Your task to perform on an android device: What is the news today? Image 0: 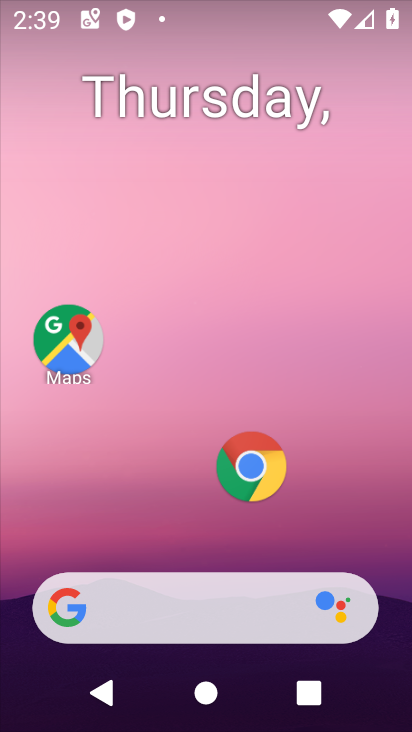
Step 0: drag from (214, 539) to (214, 209)
Your task to perform on an android device: What is the news today? Image 1: 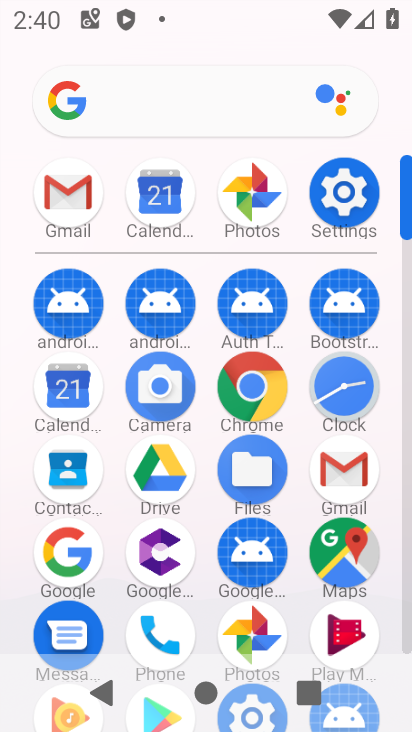
Step 1: click (74, 530)
Your task to perform on an android device: What is the news today? Image 2: 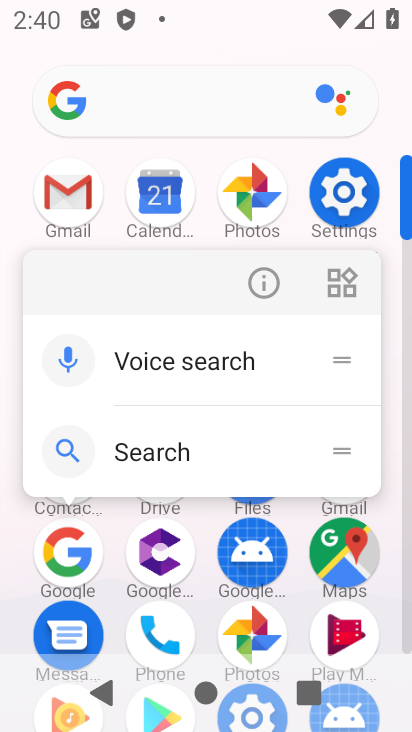
Step 2: click (72, 547)
Your task to perform on an android device: What is the news today? Image 3: 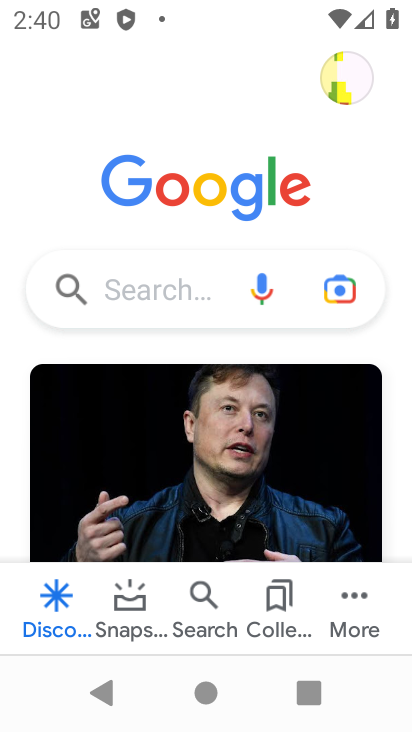
Step 3: click (170, 296)
Your task to perform on an android device: What is the news today? Image 4: 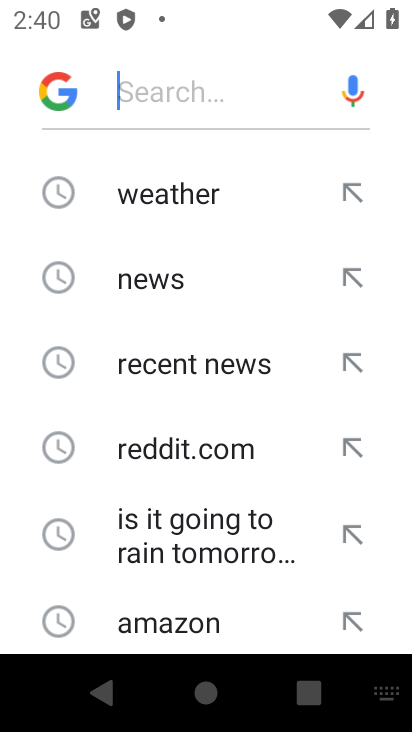
Step 4: click (186, 284)
Your task to perform on an android device: What is the news today? Image 5: 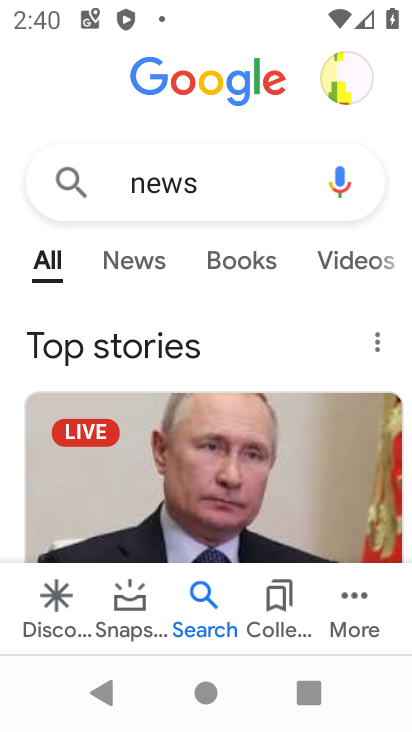
Step 5: click (138, 258)
Your task to perform on an android device: What is the news today? Image 6: 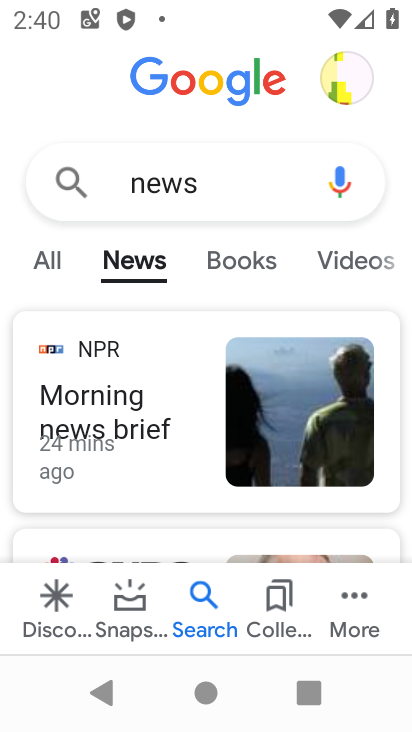
Step 6: task complete